Your task to perform on an android device: Search for Italian restaurants on Maps Image 0: 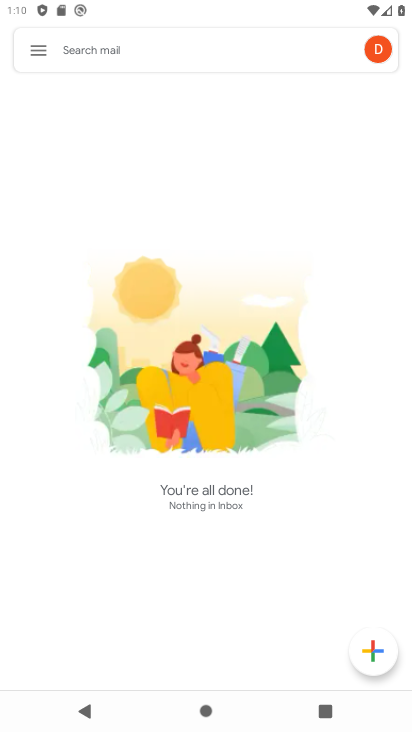
Step 0: press home button
Your task to perform on an android device: Search for Italian restaurants on Maps Image 1: 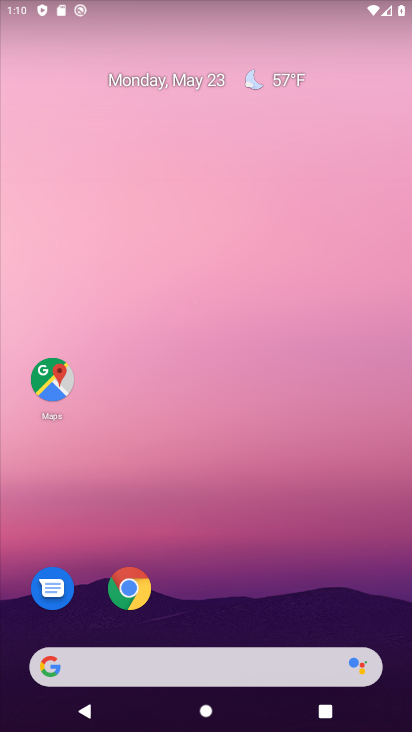
Step 1: click (44, 375)
Your task to perform on an android device: Search for Italian restaurants on Maps Image 2: 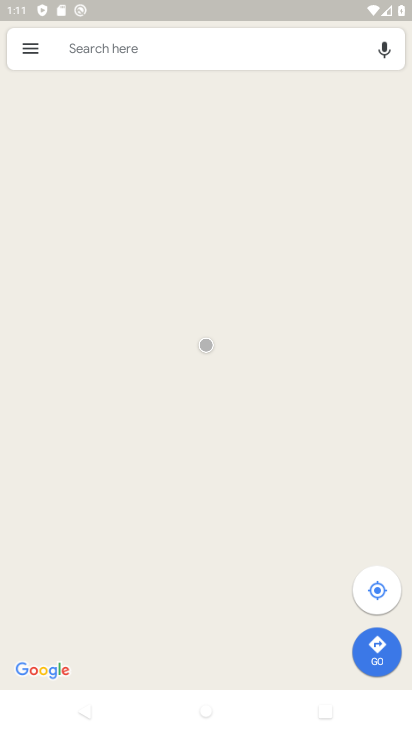
Step 2: click (177, 63)
Your task to perform on an android device: Search for Italian restaurants on Maps Image 3: 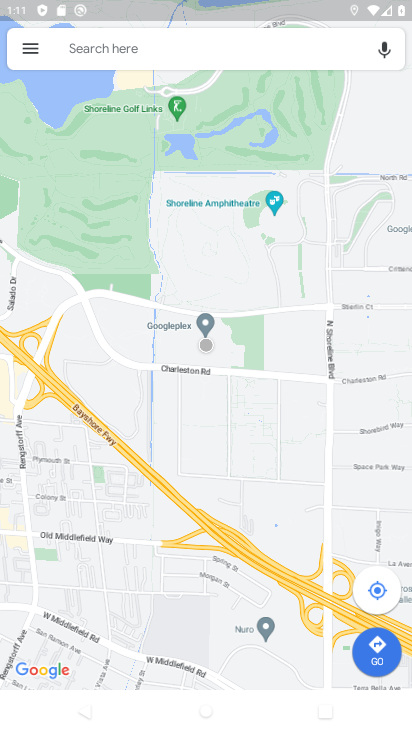
Step 3: click (177, 63)
Your task to perform on an android device: Search for Italian restaurants on Maps Image 4: 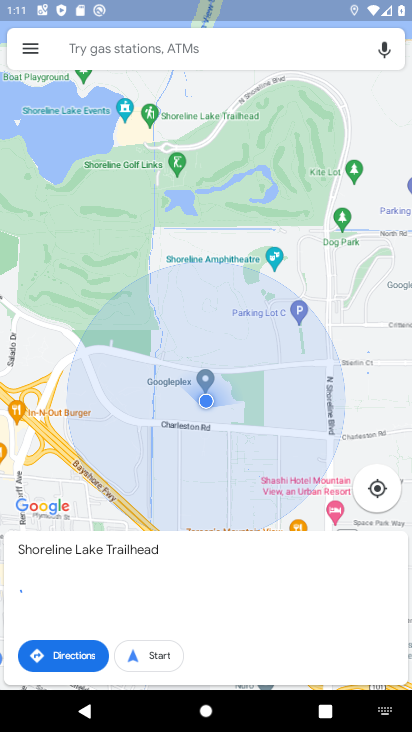
Step 4: click (177, 63)
Your task to perform on an android device: Search for Italian restaurants on Maps Image 5: 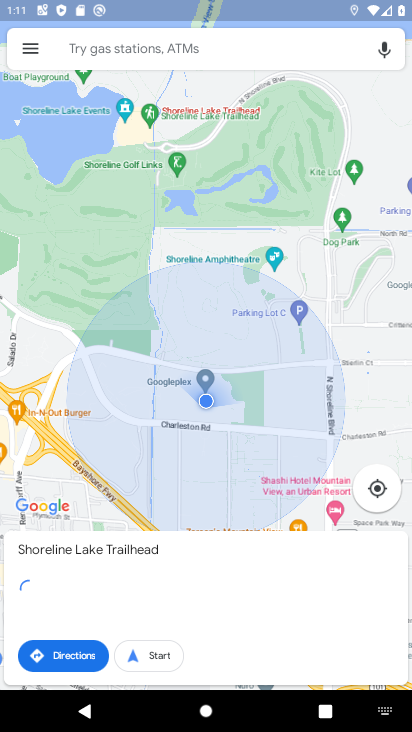
Step 5: click (126, 63)
Your task to perform on an android device: Search for Italian restaurants on Maps Image 6: 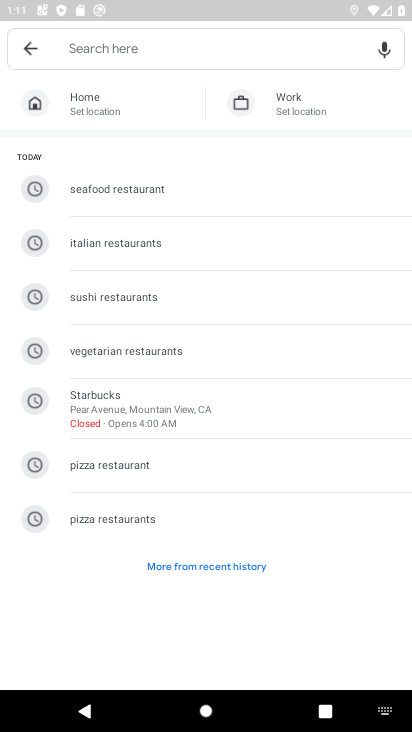
Step 6: click (124, 237)
Your task to perform on an android device: Search for Italian restaurants on Maps Image 7: 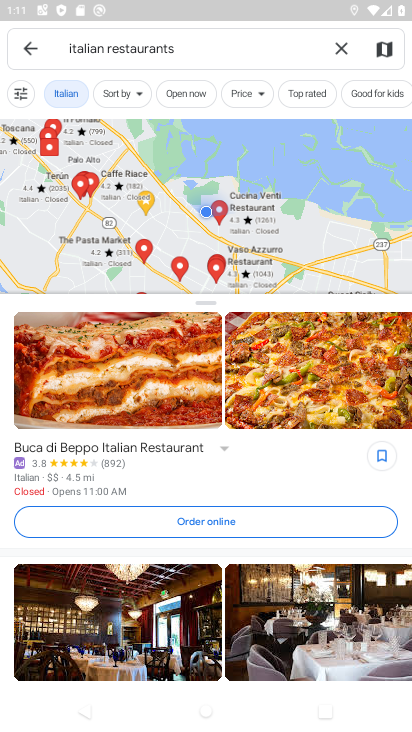
Step 7: task complete